Your task to perform on an android device: Go to notification settings Image 0: 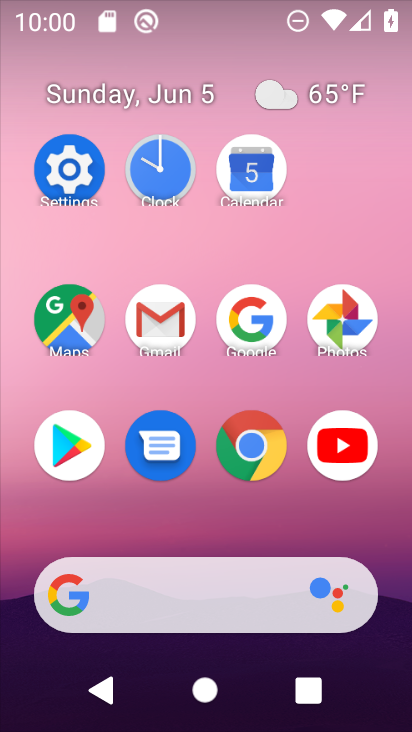
Step 0: click (65, 192)
Your task to perform on an android device: Go to notification settings Image 1: 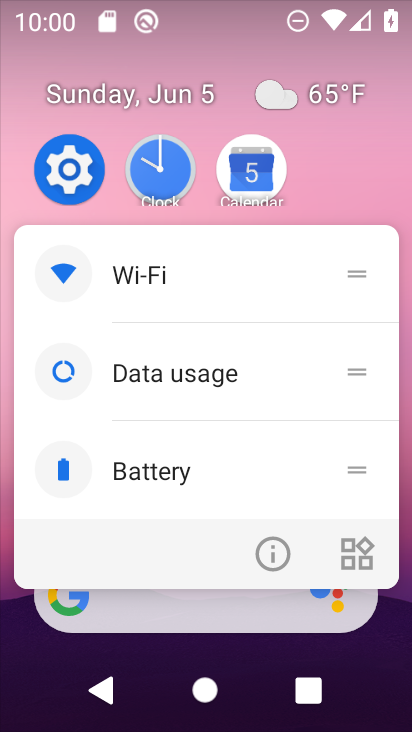
Step 1: click (81, 210)
Your task to perform on an android device: Go to notification settings Image 2: 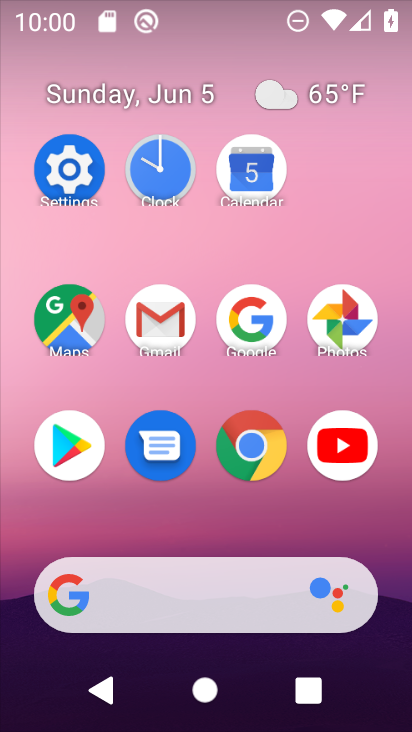
Step 2: click (86, 174)
Your task to perform on an android device: Go to notification settings Image 3: 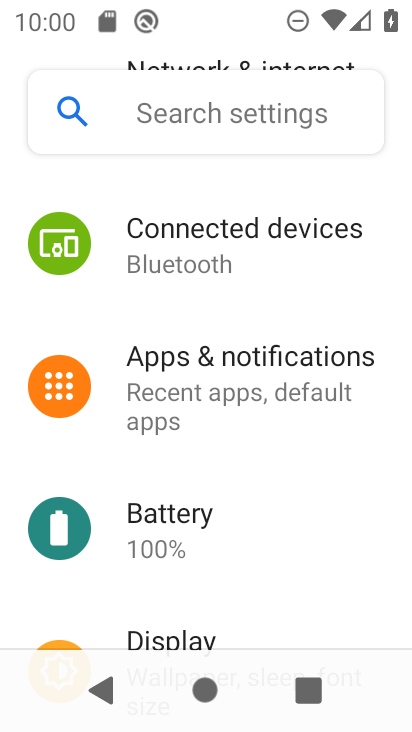
Step 3: click (206, 355)
Your task to perform on an android device: Go to notification settings Image 4: 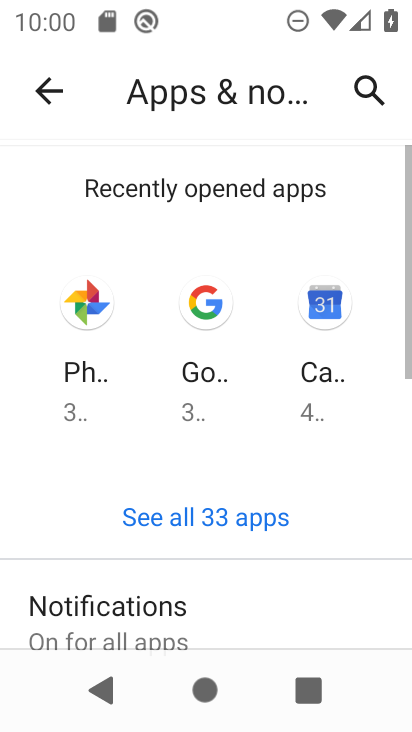
Step 4: task complete